Your task to perform on an android device: turn off notifications in google photos Image 0: 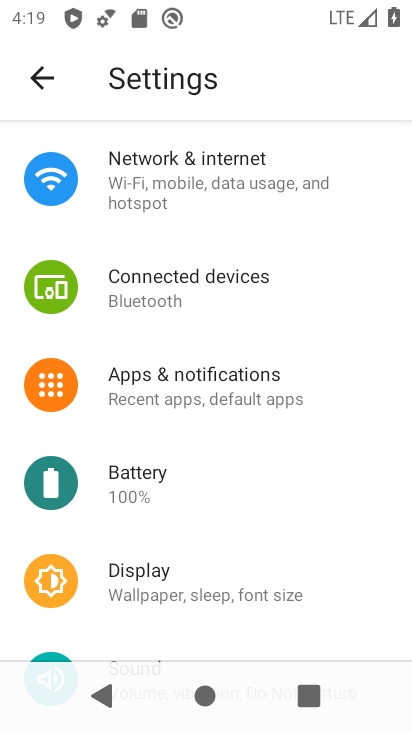
Step 0: press home button
Your task to perform on an android device: turn off notifications in google photos Image 1: 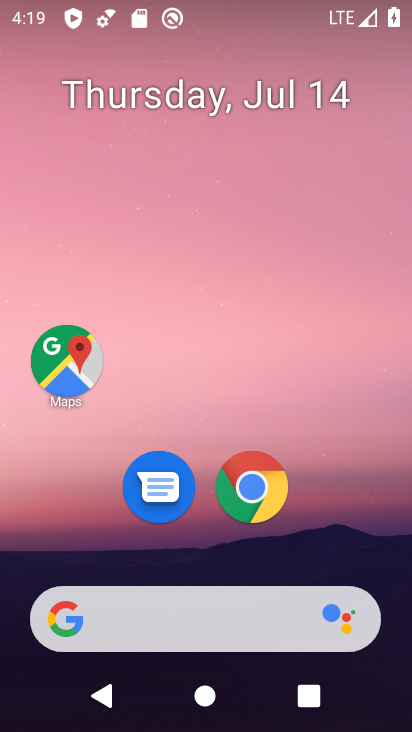
Step 1: drag from (396, 547) to (377, 142)
Your task to perform on an android device: turn off notifications in google photos Image 2: 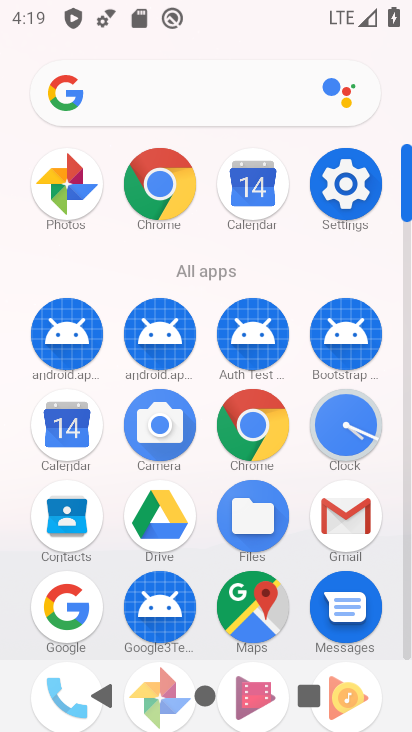
Step 2: click (73, 187)
Your task to perform on an android device: turn off notifications in google photos Image 3: 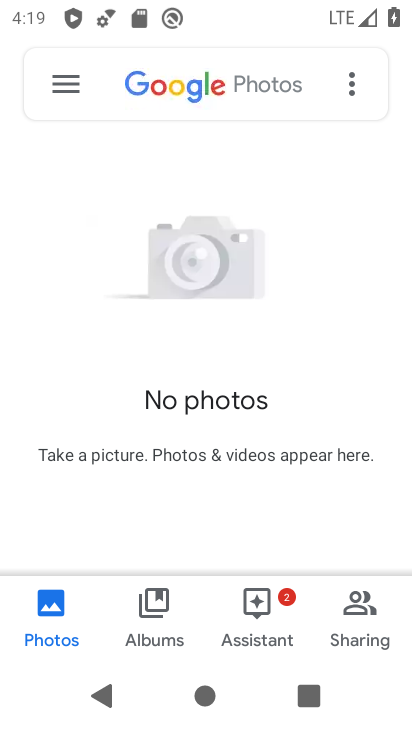
Step 3: click (64, 86)
Your task to perform on an android device: turn off notifications in google photos Image 4: 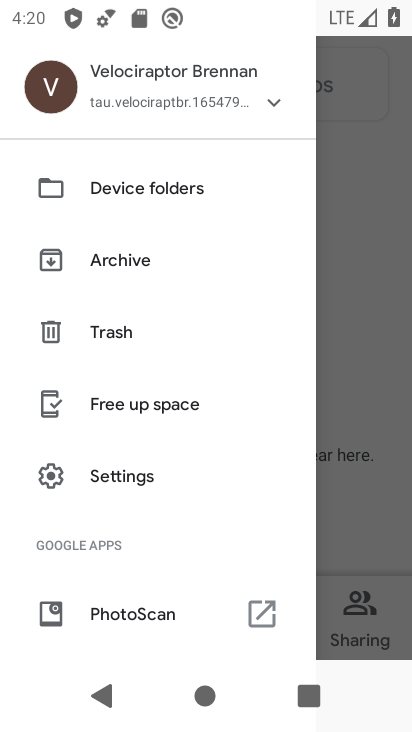
Step 4: click (147, 493)
Your task to perform on an android device: turn off notifications in google photos Image 5: 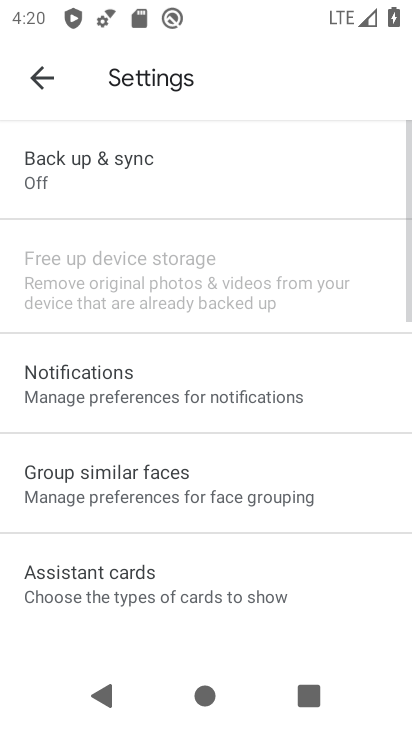
Step 5: click (202, 406)
Your task to perform on an android device: turn off notifications in google photos Image 6: 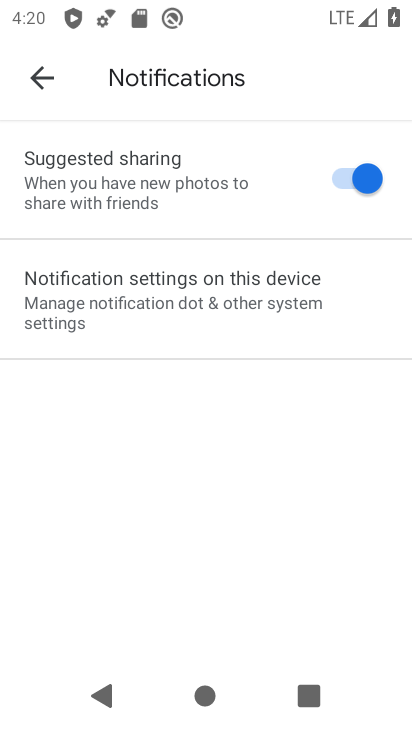
Step 6: click (345, 261)
Your task to perform on an android device: turn off notifications in google photos Image 7: 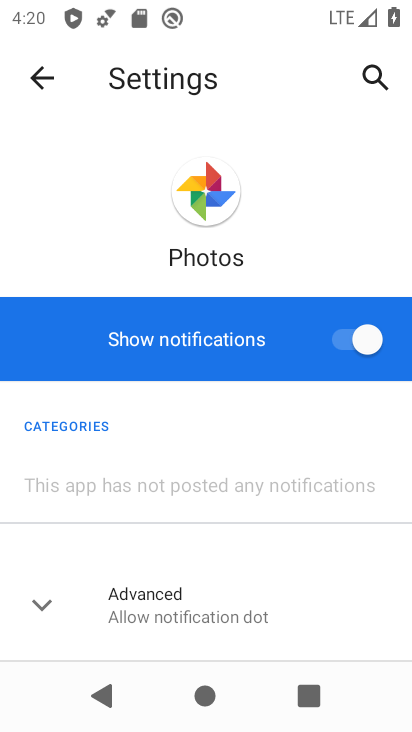
Step 7: click (347, 339)
Your task to perform on an android device: turn off notifications in google photos Image 8: 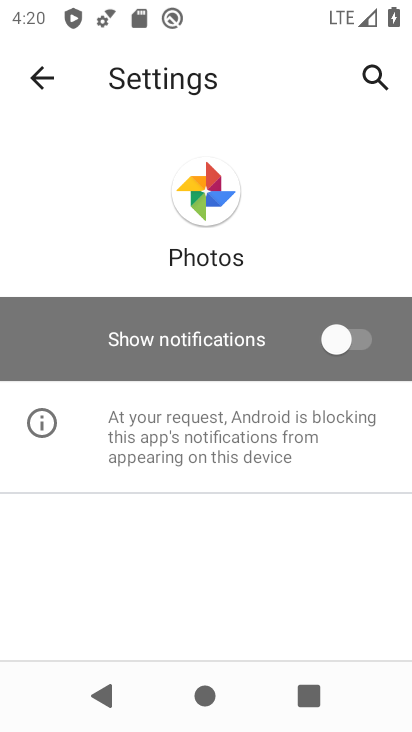
Step 8: task complete